Your task to perform on an android device: open chrome and create a bookmark for the current page Image 0: 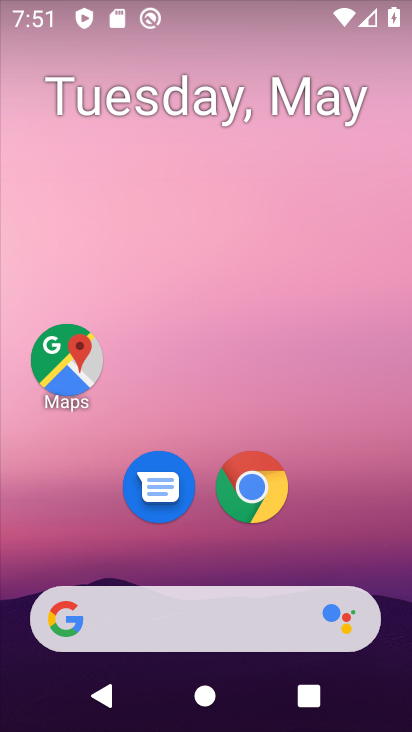
Step 0: click (253, 497)
Your task to perform on an android device: open chrome and create a bookmark for the current page Image 1: 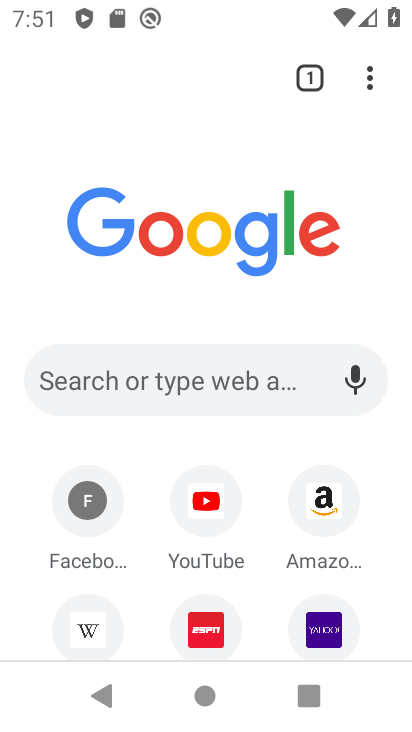
Step 1: click (205, 364)
Your task to perform on an android device: open chrome and create a bookmark for the current page Image 2: 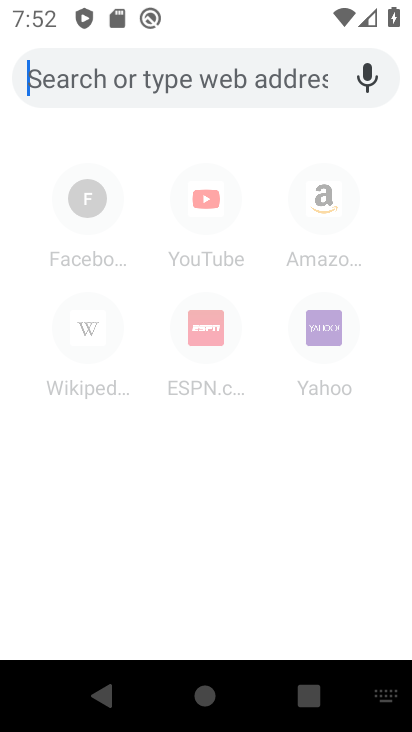
Step 2: type "isis.co"
Your task to perform on an android device: open chrome and create a bookmark for the current page Image 3: 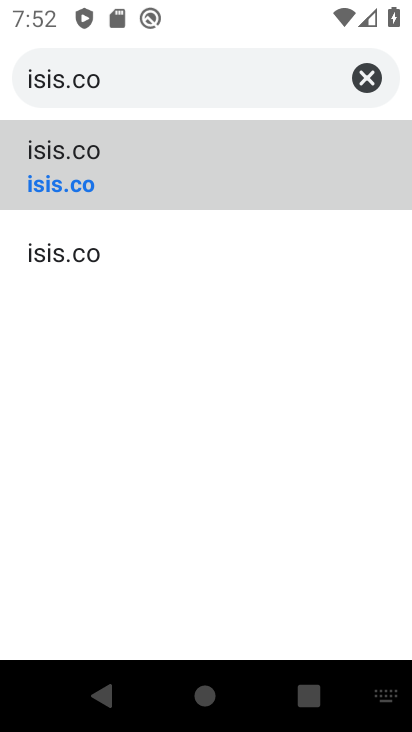
Step 3: click (123, 170)
Your task to perform on an android device: open chrome and create a bookmark for the current page Image 4: 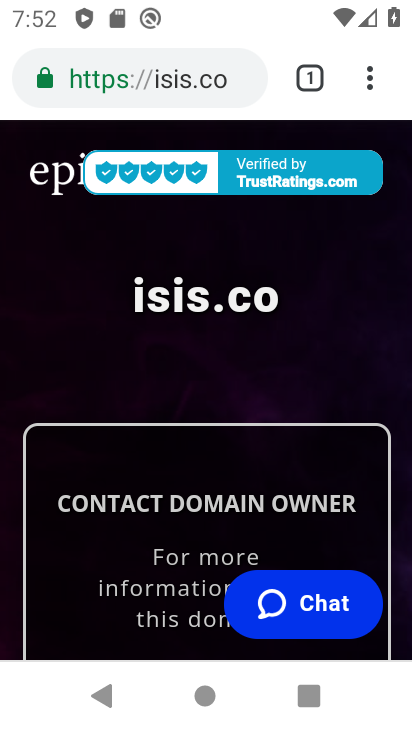
Step 4: click (365, 74)
Your task to perform on an android device: open chrome and create a bookmark for the current page Image 5: 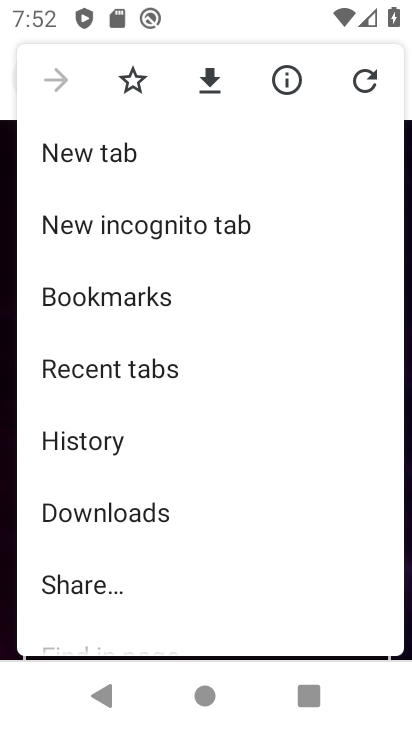
Step 5: click (135, 73)
Your task to perform on an android device: open chrome and create a bookmark for the current page Image 6: 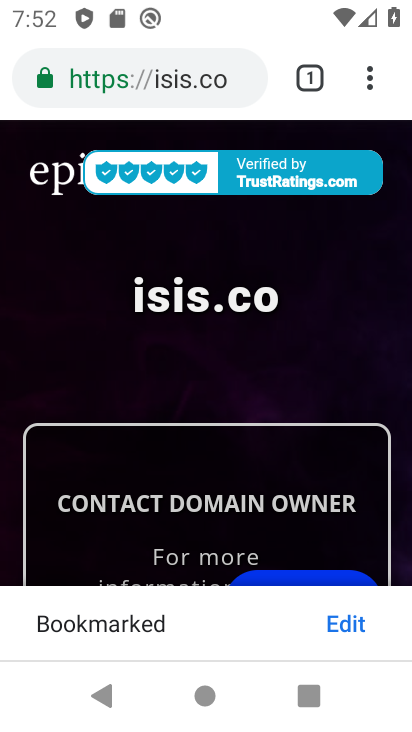
Step 6: task complete